Your task to perform on an android device: change your default location settings in chrome Image 0: 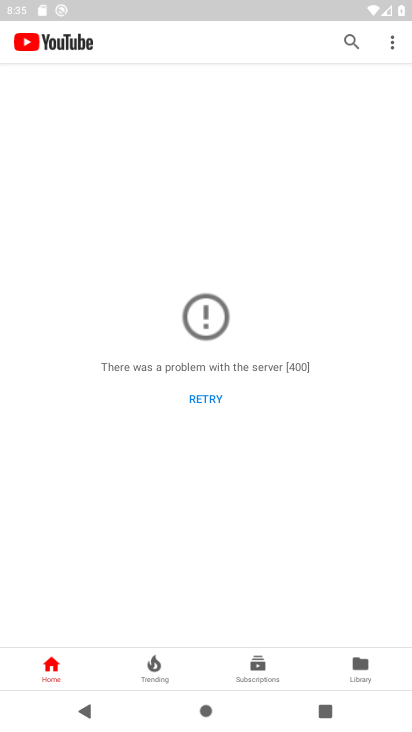
Step 0: press home button
Your task to perform on an android device: change your default location settings in chrome Image 1: 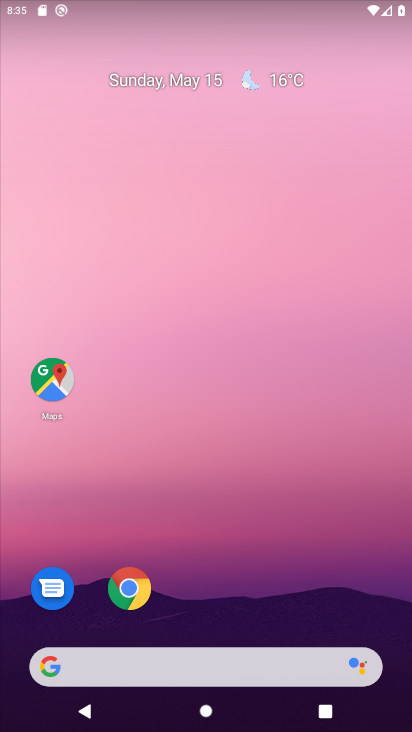
Step 1: click (120, 596)
Your task to perform on an android device: change your default location settings in chrome Image 2: 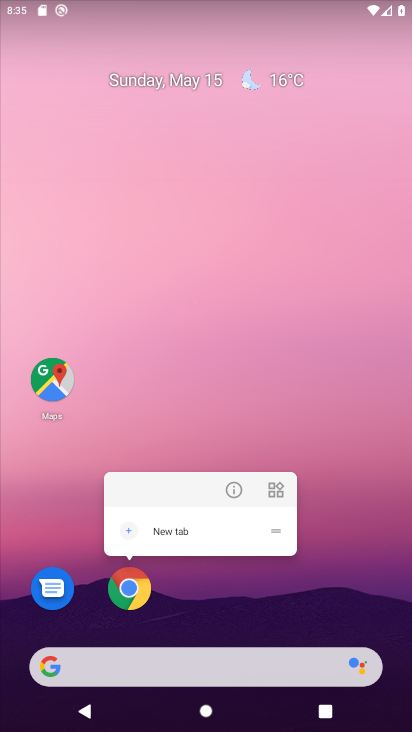
Step 2: click (103, 607)
Your task to perform on an android device: change your default location settings in chrome Image 3: 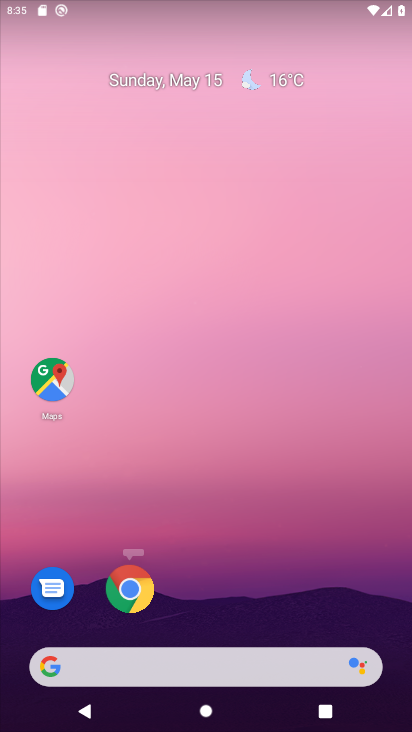
Step 3: click (121, 604)
Your task to perform on an android device: change your default location settings in chrome Image 4: 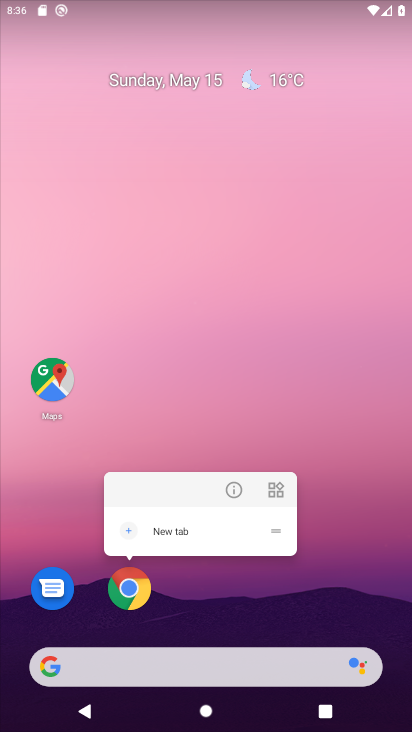
Step 4: click (148, 599)
Your task to perform on an android device: change your default location settings in chrome Image 5: 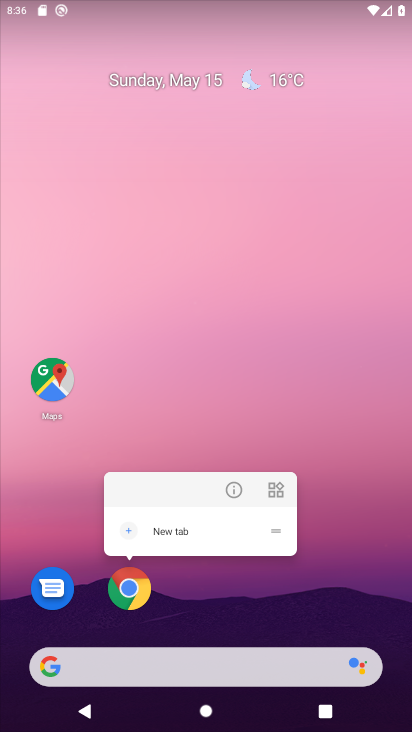
Step 5: click (144, 599)
Your task to perform on an android device: change your default location settings in chrome Image 6: 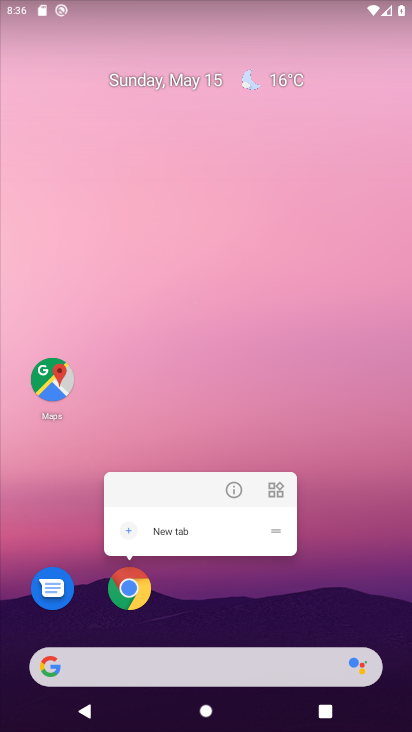
Step 6: click (138, 596)
Your task to perform on an android device: change your default location settings in chrome Image 7: 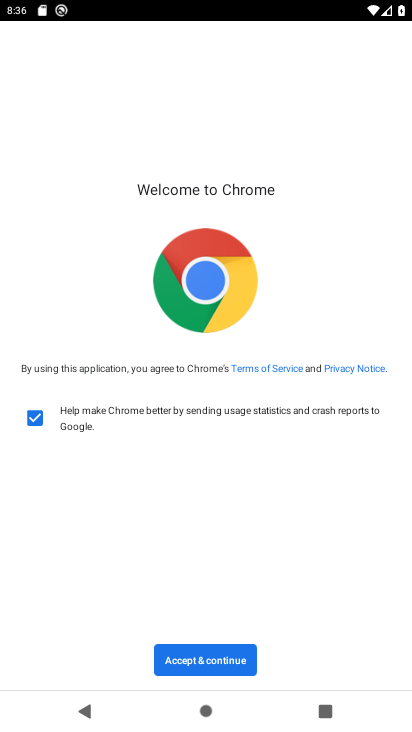
Step 7: click (231, 660)
Your task to perform on an android device: change your default location settings in chrome Image 8: 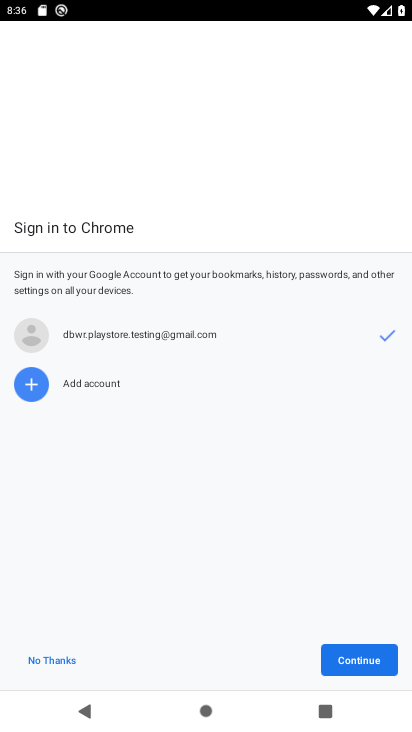
Step 8: click (378, 667)
Your task to perform on an android device: change your default location settings in chrome Image 9: 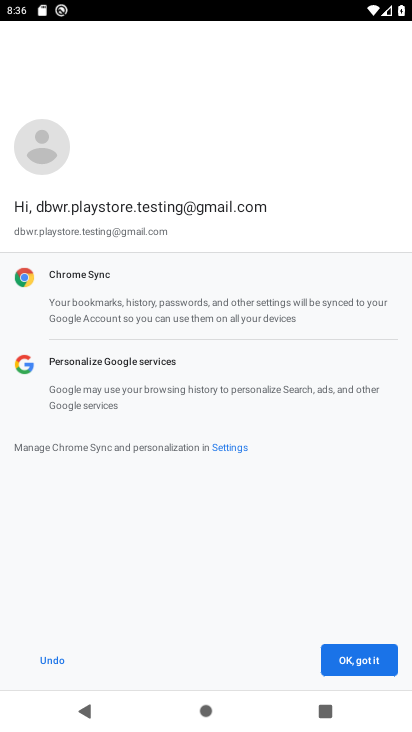
Step 9: click (377, 667)
Your task to perform on an android device: change your default location settings in chrome Image 10: 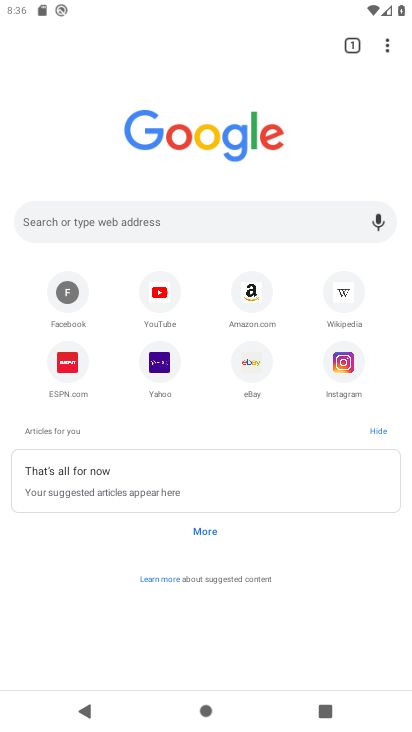
Step 10: drag from (385, 44) to (256, 389)
Your task to perform on an android device: change your default location settings in chrome Image 11: 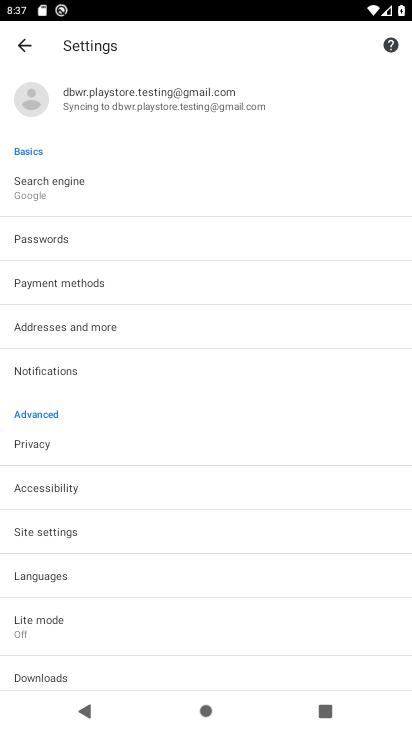
Step 11: drag from (135, 632) to (133, 471)
Your task to perform on an android device: change your default location settings in chrome Image 12: 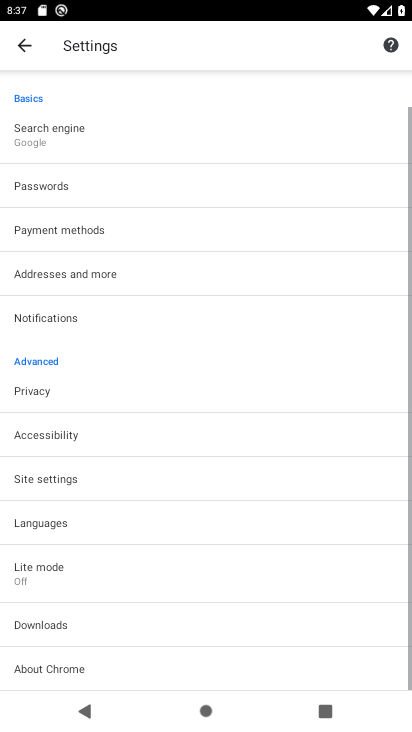
Step 12: click (46, 480)
Your task to perform on an android device: change your default location settings in chrome Image 13: 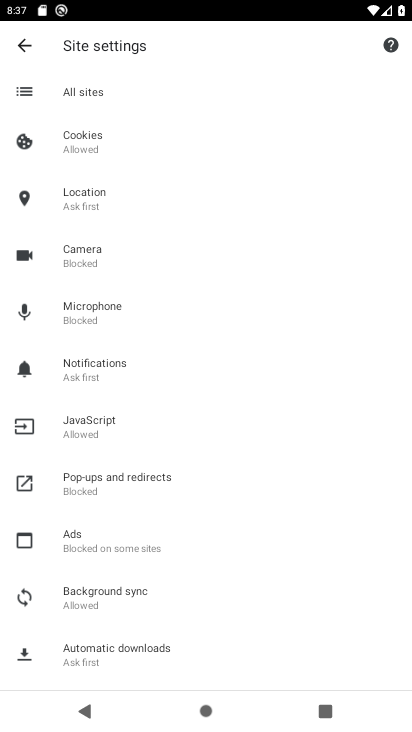
Step 13: click (92, 195)
Your task to perform on an android device: change your default location settings in chrome Image 14: 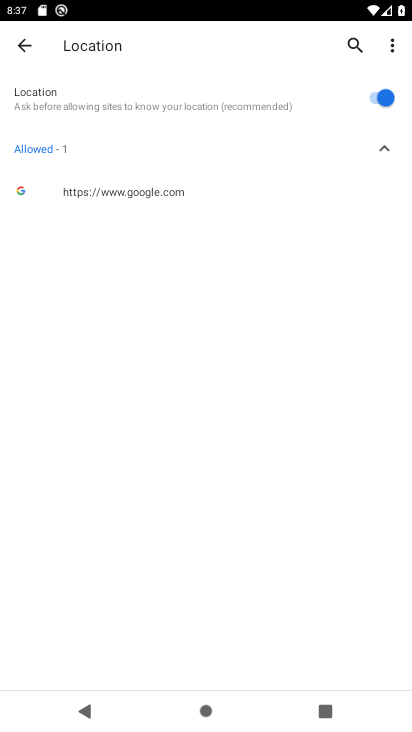
Step 14: click (373, 99)
Your task to perform on an android device: change your default location settings in chrome Image 15: 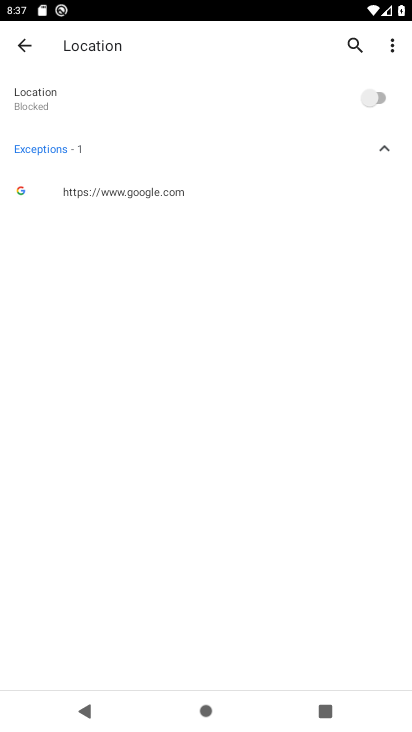
Step 15: task complete